Your task to perform on an android device: View the shopping cart on target. Search for usb-a to usb-b on target, select the first entry, and add it to the cart. Image 0: 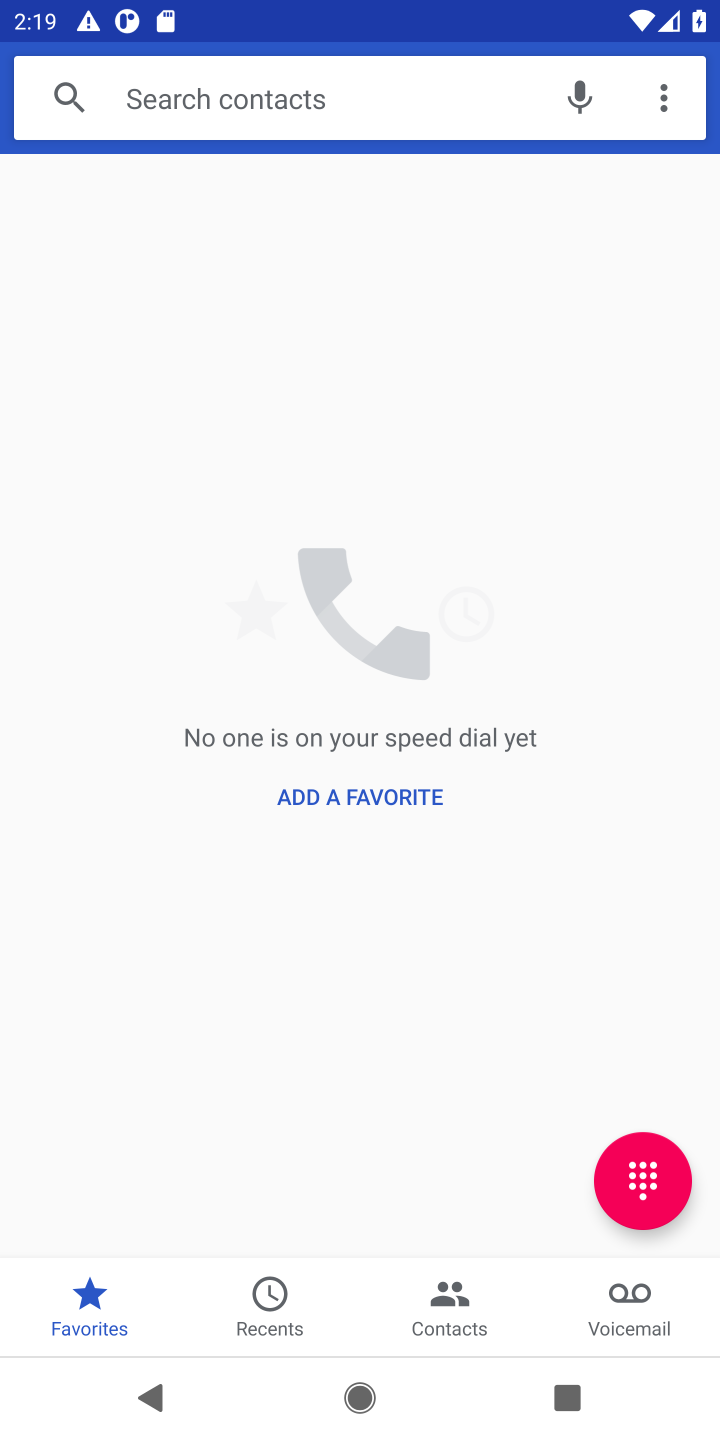
Step 0: press home button
Your task to perform on an android device: View the shopping cart on target. Search for usb-a to usb-b on target, select the first entry, and add it to the cart. Image 1: 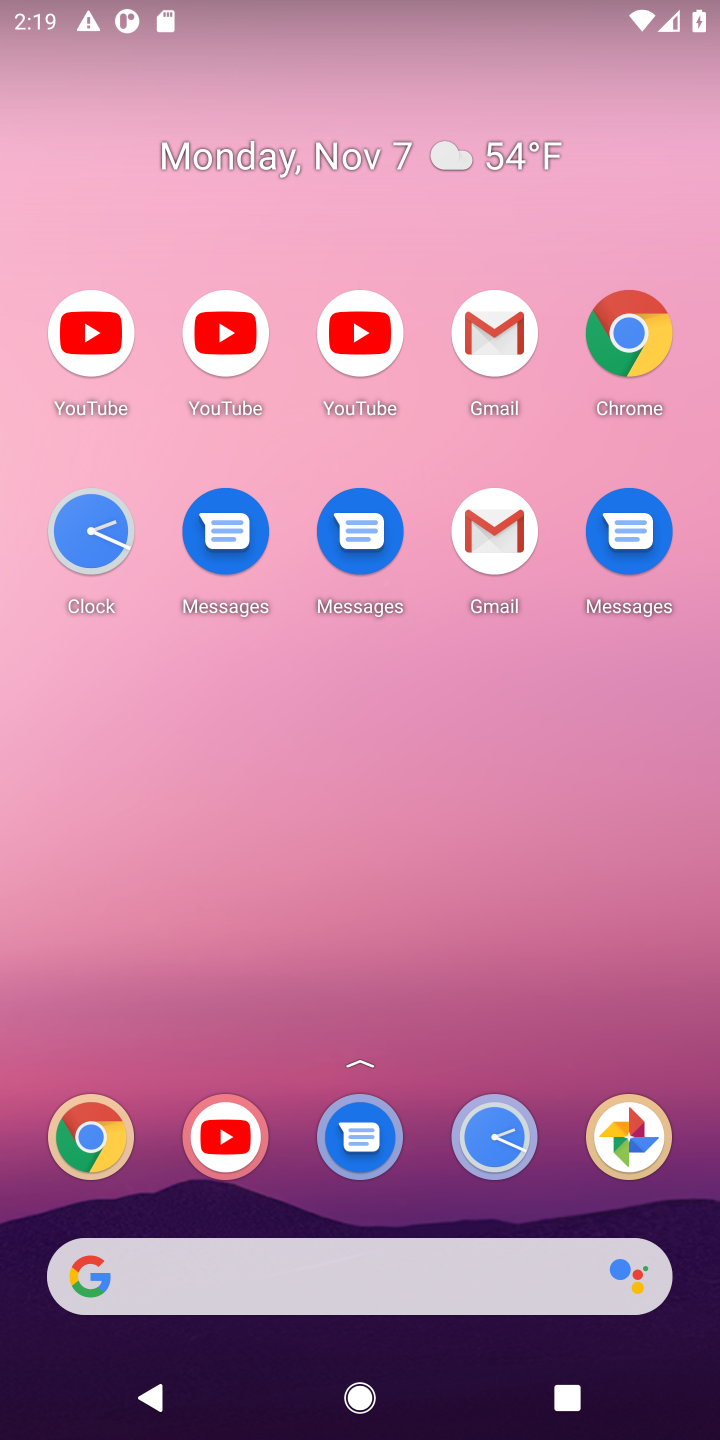
Step 1: drag from (406, 1191) to (318, 112)
Your task to perform on an android device: View the shopping cart on target. Search for usb-a to usb-b on target, select the first entry, and add it to the cart. Image 2: 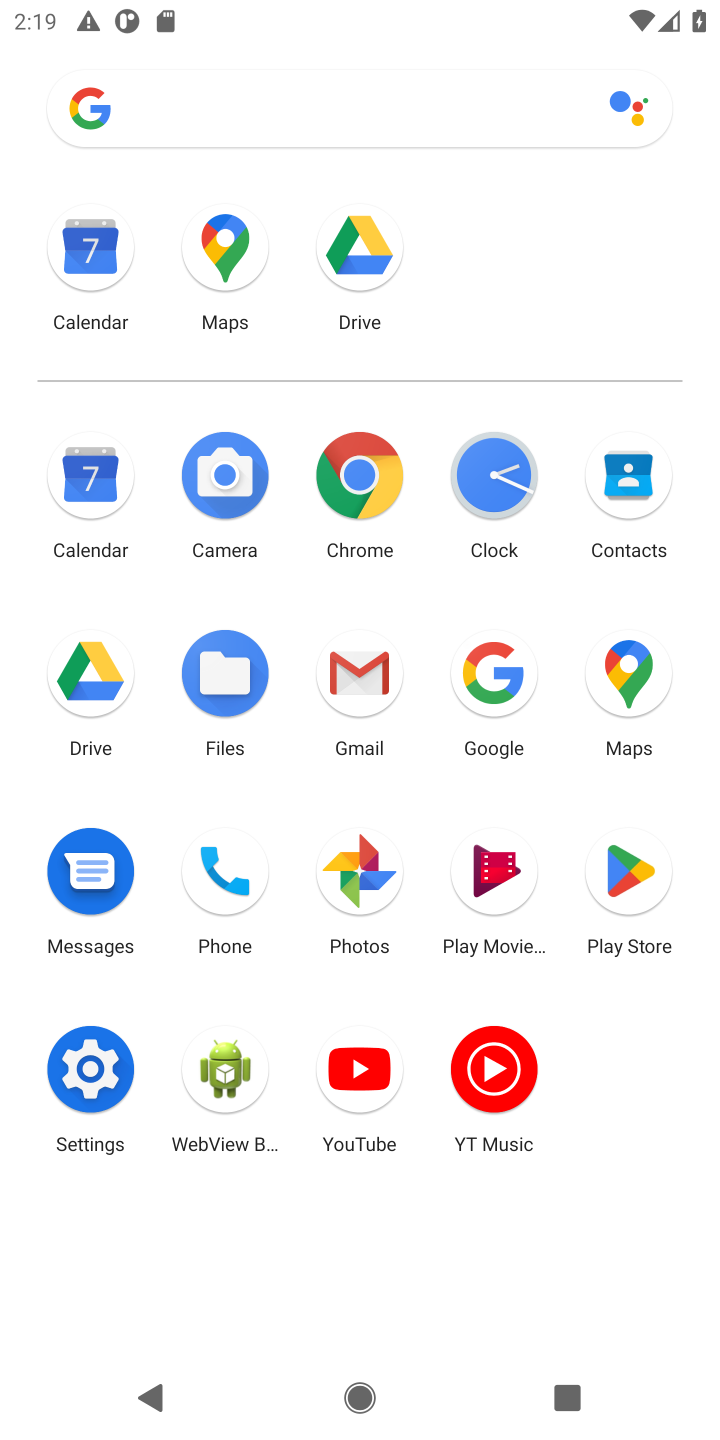
Step 2: click (360, 472)
Your task to perform on an android device: View the shopping cart on target. Search for usb-a to usb-b on target, select the first entry, and add it to the cart. Image 3: 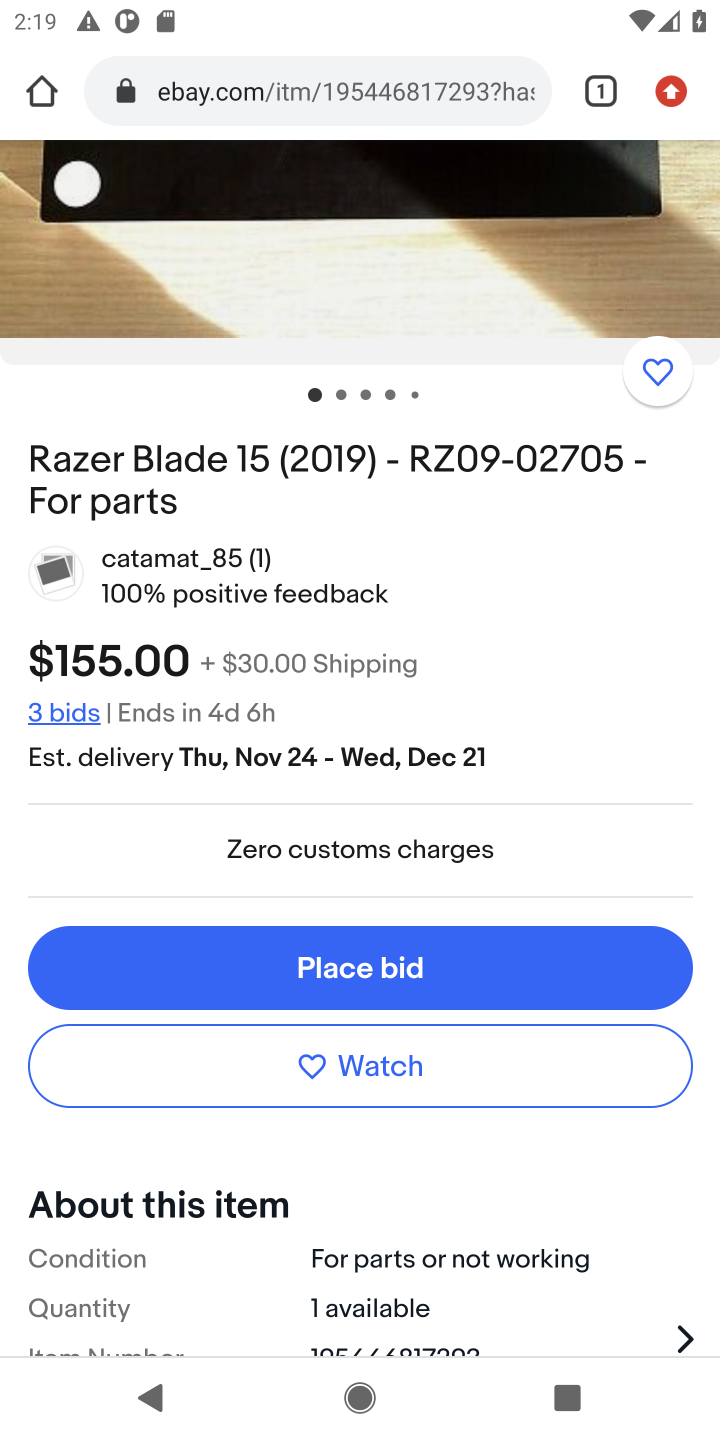
Step 3: click (369, 71)
Your task to perform on an android device: View the shopping cart on target. Search for usb-a to usb-b on target, select the first entry, and add it to the cart. Image 4: 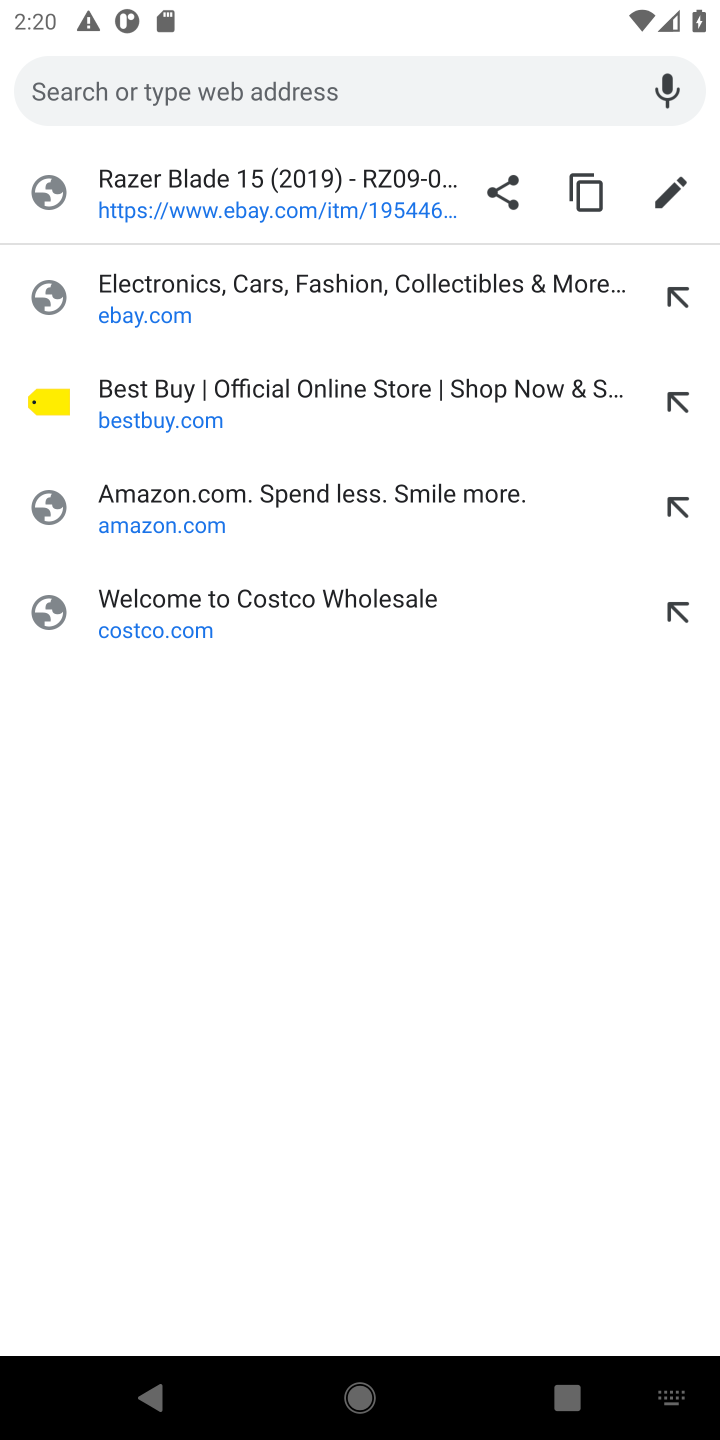
Step 4: type "target.com"
Your task to perform on an android device: View the shopping cart on target. Search for usb-a to usb-b on target, select the first entry, and add it to the cart. Image 5: 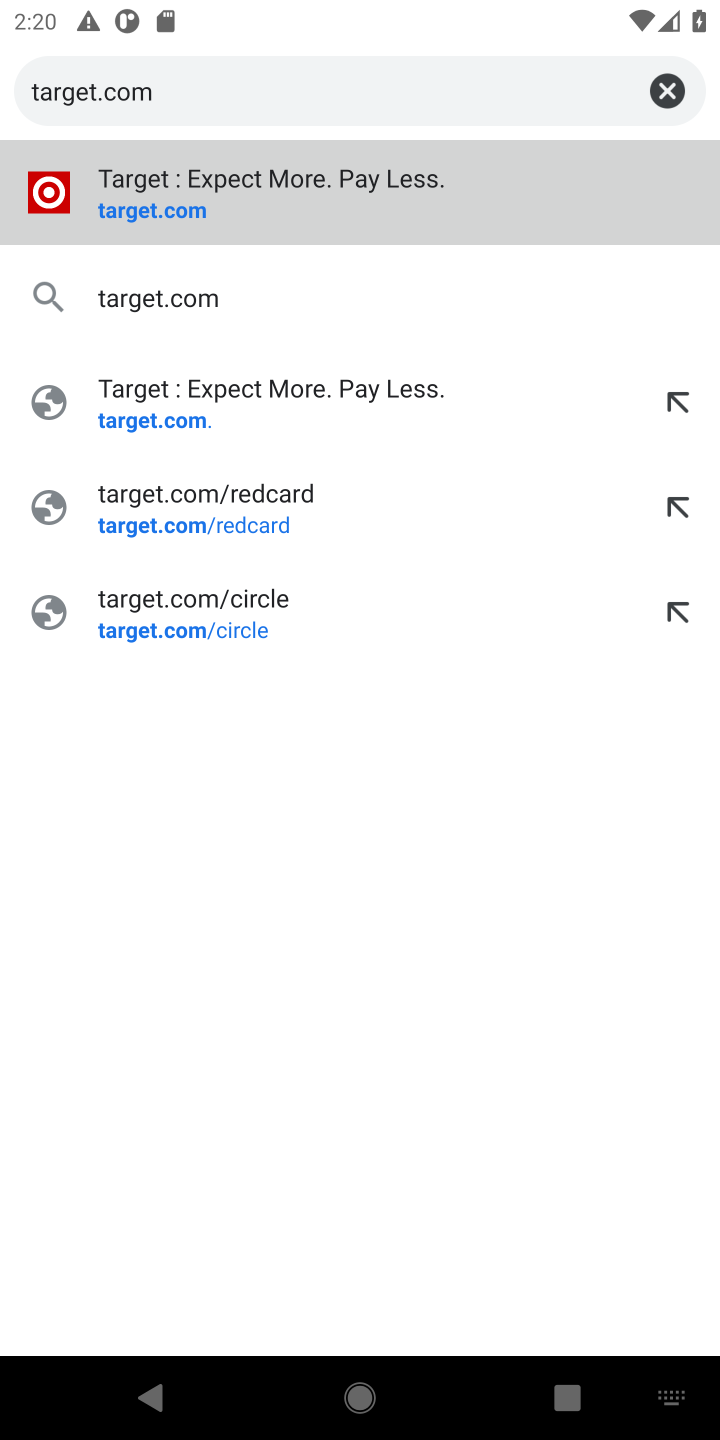
Step 5: press enter
Your task to perform on an android device: View the shopping cart on target. Search for usb-a to usb-b on target, select the first entry, and add it to the cart. Image 6: 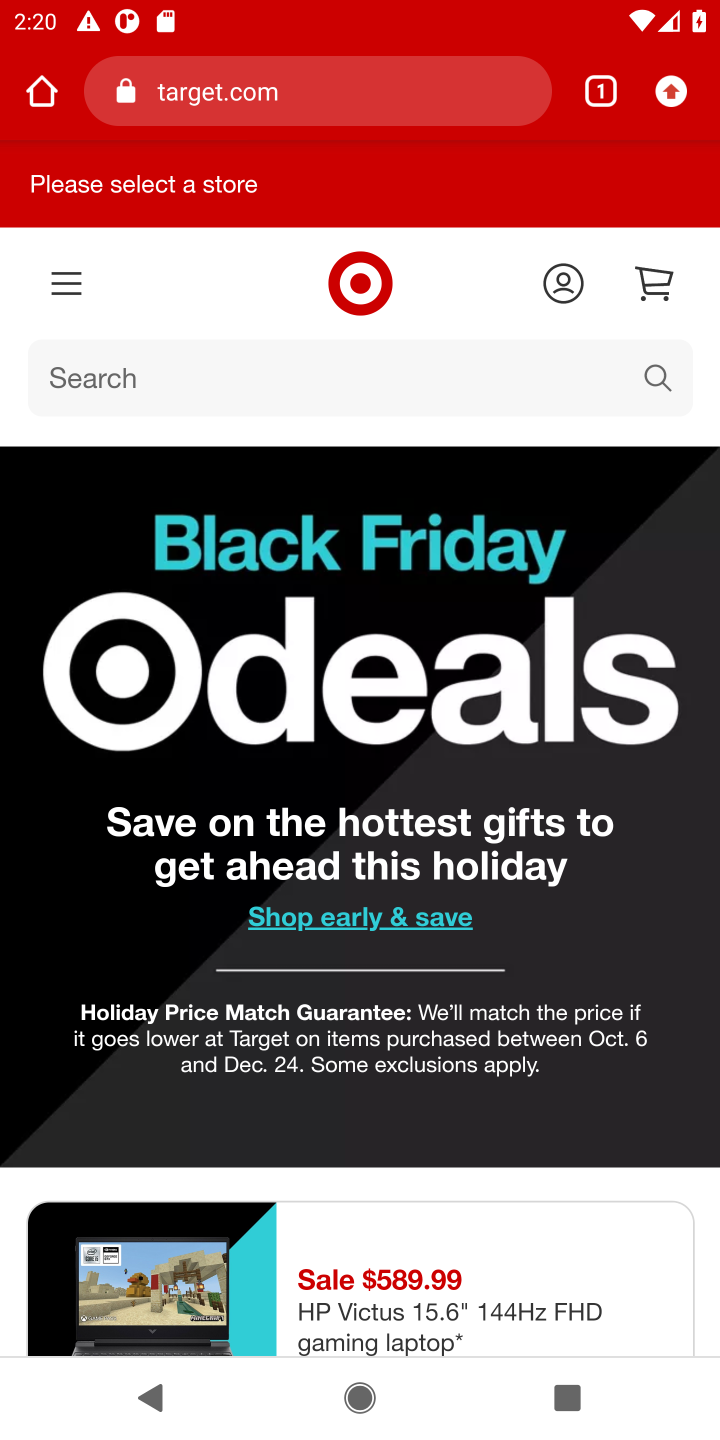
Step 6: click (656, 292)
Your task to perform on an android device: View the shopping cart on target. Search for usb-a to usb-b on target, select the first entry, and add it to the cart. Image 7: 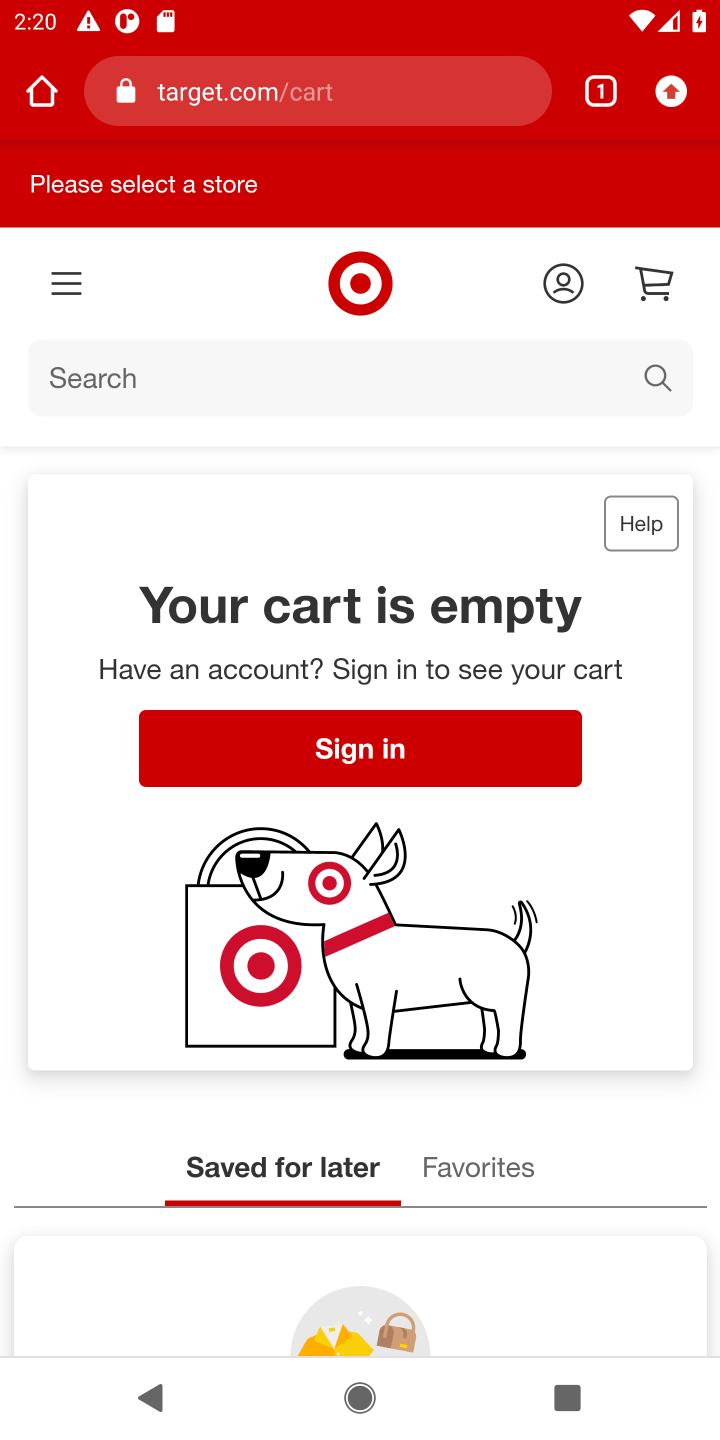
Step 7: click (406, 384)
Your task to perform on an android device: View the shopping cart on target. Search for usb-a to usb-b on target, select the first entry, and add it to the cart. Image 8: 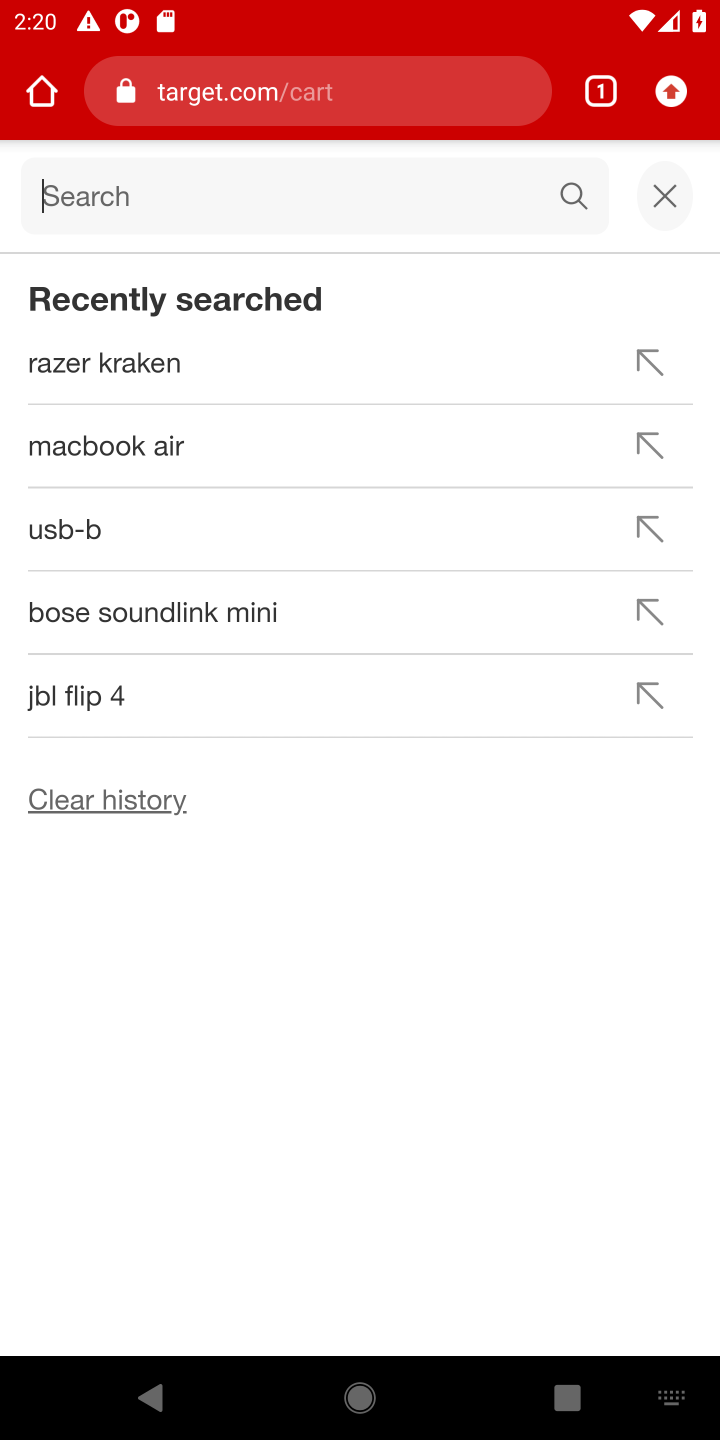
Step 8: type "usb-a to usb-b"
Your task to perform on an android device: View the shopping cart on target. Search for usb-a to usb-b on target, select the first entry, and add it to the cart. Image 9: 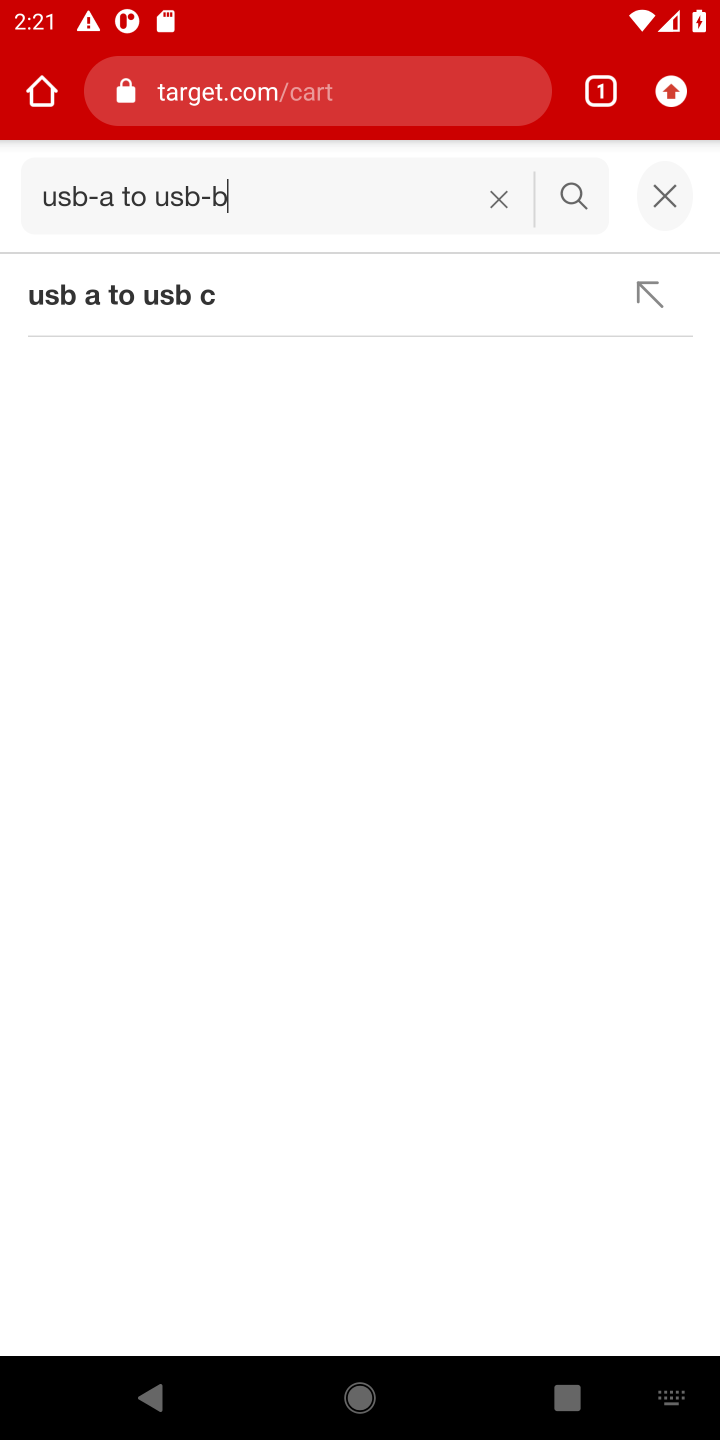
Step 9: press enter
Your task to perform on an android device: View the shopping cart on target. Search for usb-a to usb-b on target, select the first entry, and add it to the cart. Image 10: 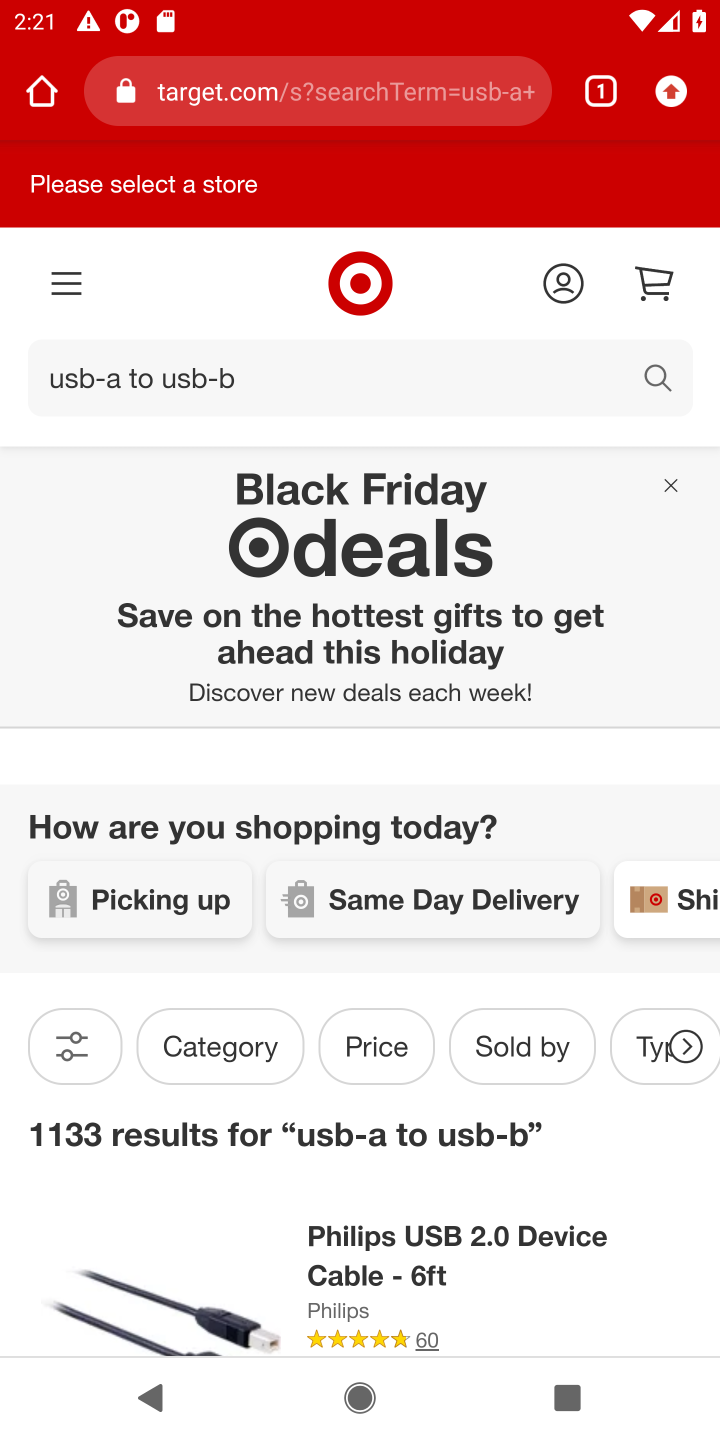
Step 10: drag from (400, 1241) to (417, 553)
Your task to perform on an android device: View the shopping cart on target. Search for usb-a to usb-b on target, select the first entry, and add it to the cart. Image 11: 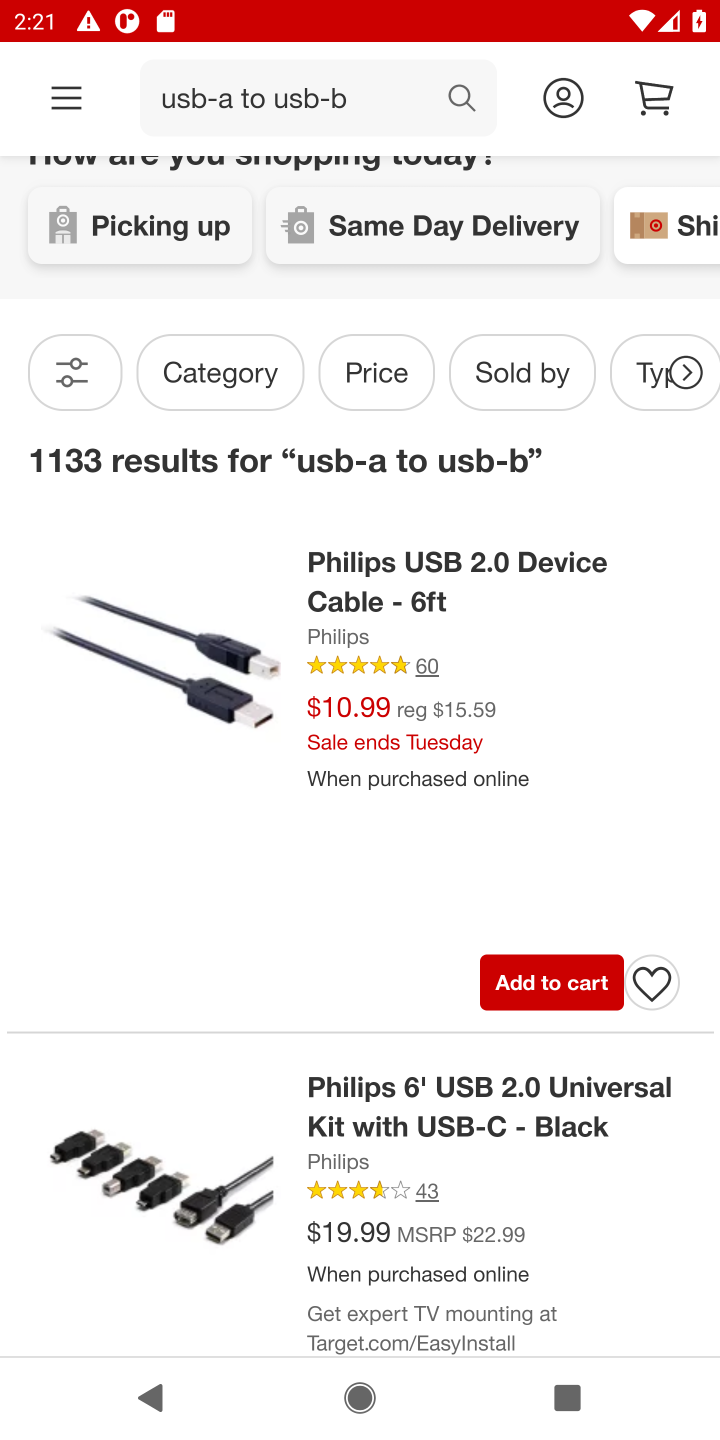
Step 11: drag from (568, 1248) to (563, 748)
Your task to perform on an android device: View the shopping cart on target. Search for usb-a to usb-b on target, select the first entry, and add it to the cart. Image 12: 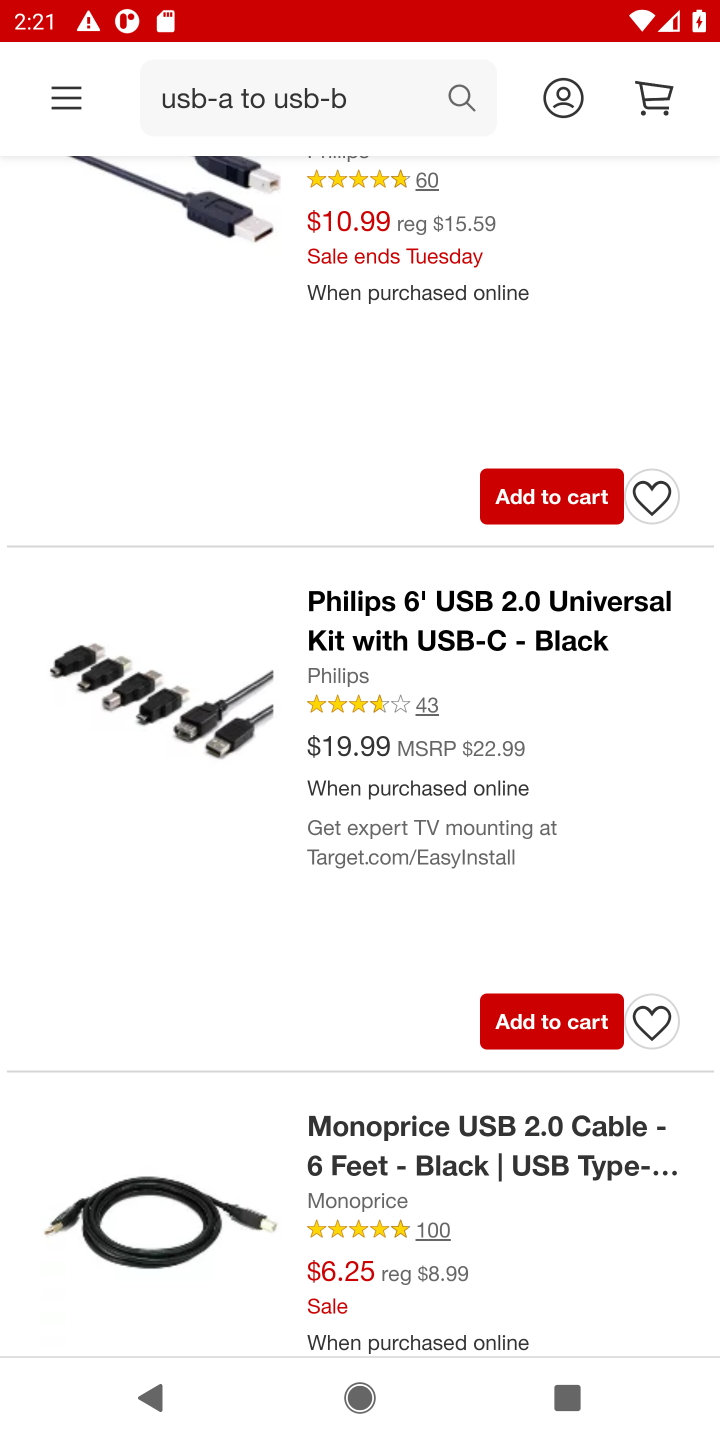
Step 12: drag from (457, 903) to (485, 500)
Your task to perform on an android device: View the shopping cart on target. Search for usb-a to usb-b on target, select the first entry, and add it to the cart. Image 13: 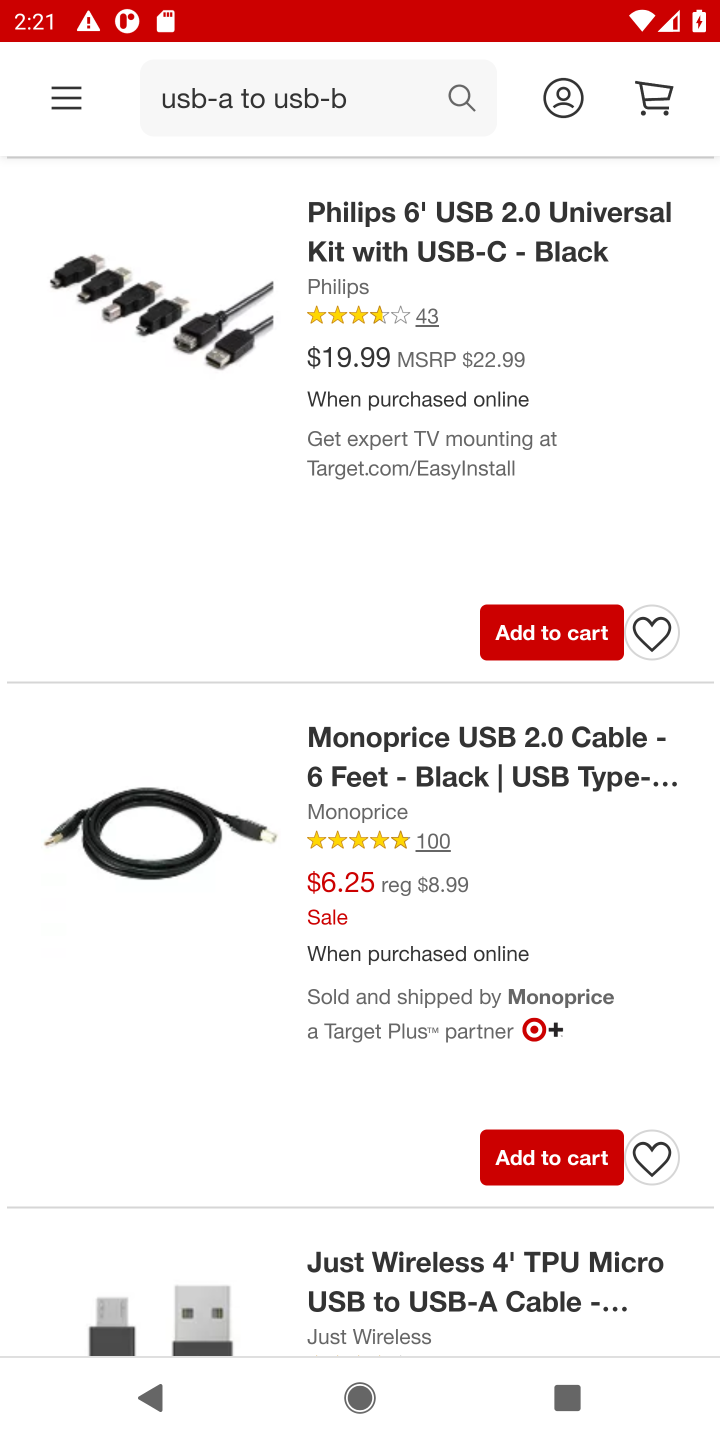
Step 13: drag from (510, 881) to (602, 580)
Your task to perform on an android device: View the shopping cart on target. Search for usb-a to usb-b on target, select the first entry, and add it to the cart. Image 14: 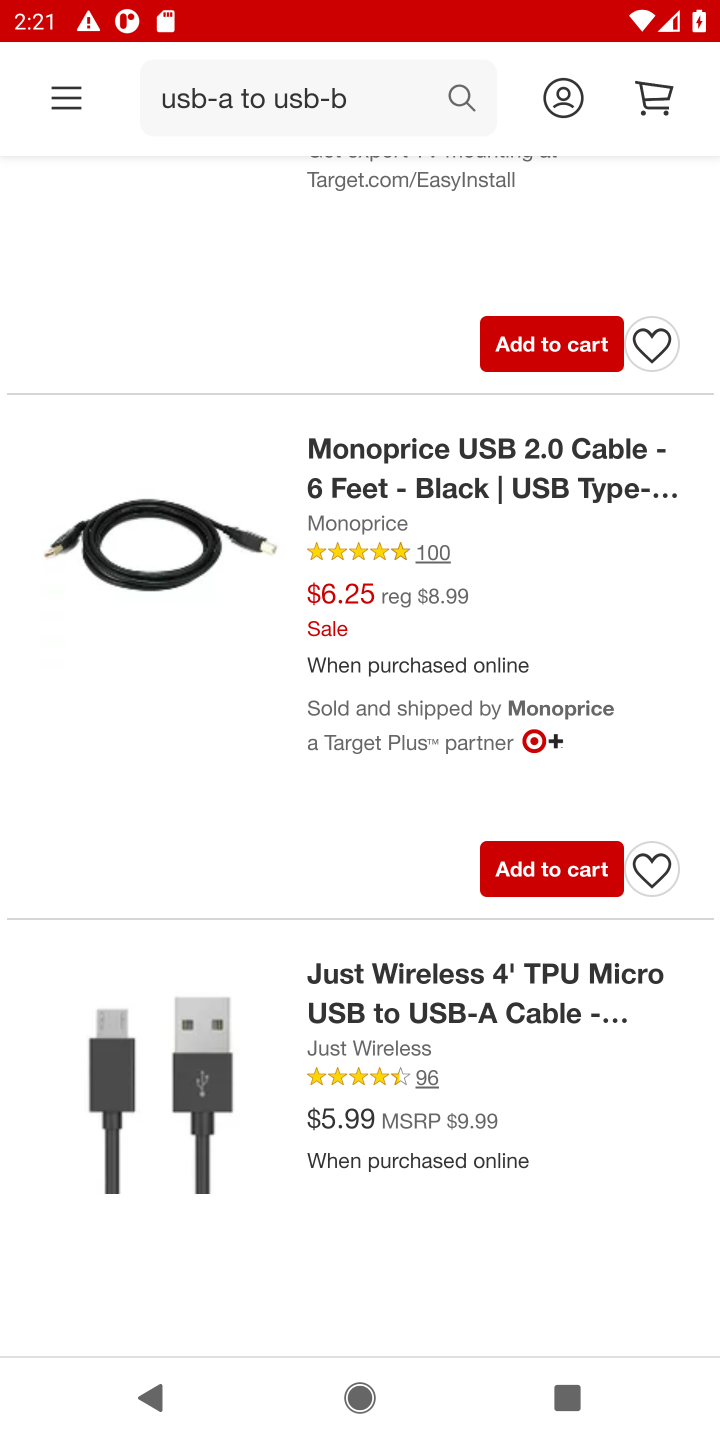
Step 14: drag from (345, 486) to (363, 1117)
Your task to perform on an android device: View the shopping cart on target. Search for usb-a to usb-b on target, select the first entry, and add it to the cart. Image 15: 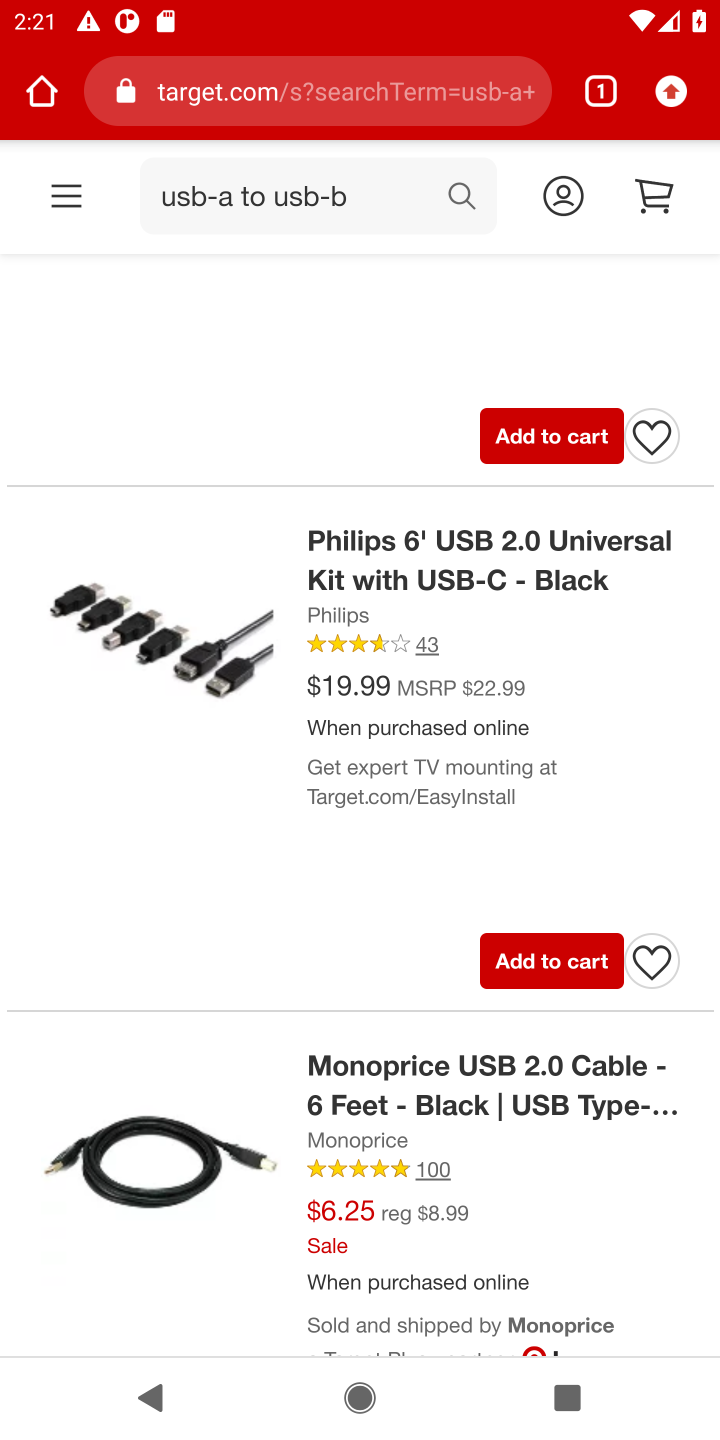
Step 15: drag from (369, 639) to (385, 997)
Your task to perform on an android device: View the shopping cart on target. Search for usb-a to usb-b on target, select the first entry, and add it to the cart. Image 16: 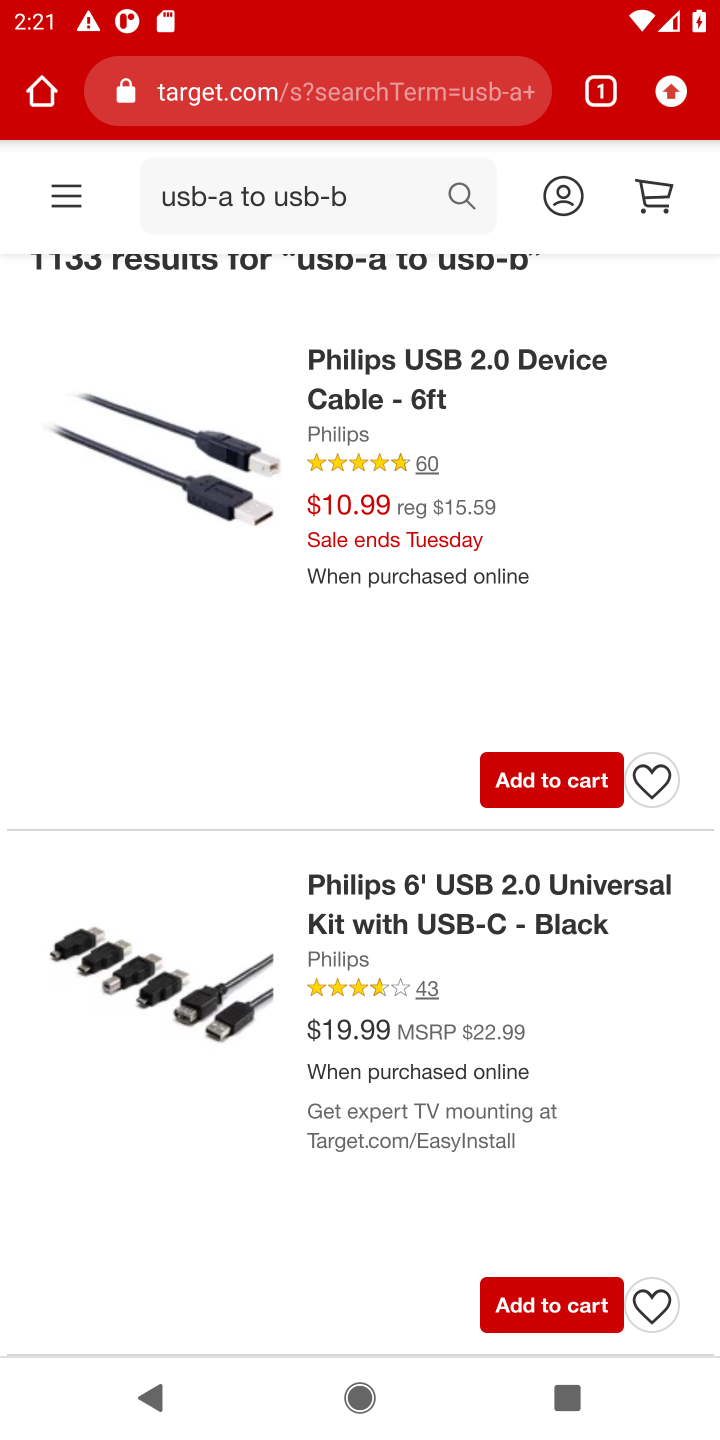
Step 16: drag from (431, 484) to (396, 932)
Your task to perform on an android device: View the shopping cart on target. Search for usb-a to usb-b on target, select the first entry, and add it to the cart. Image 17: 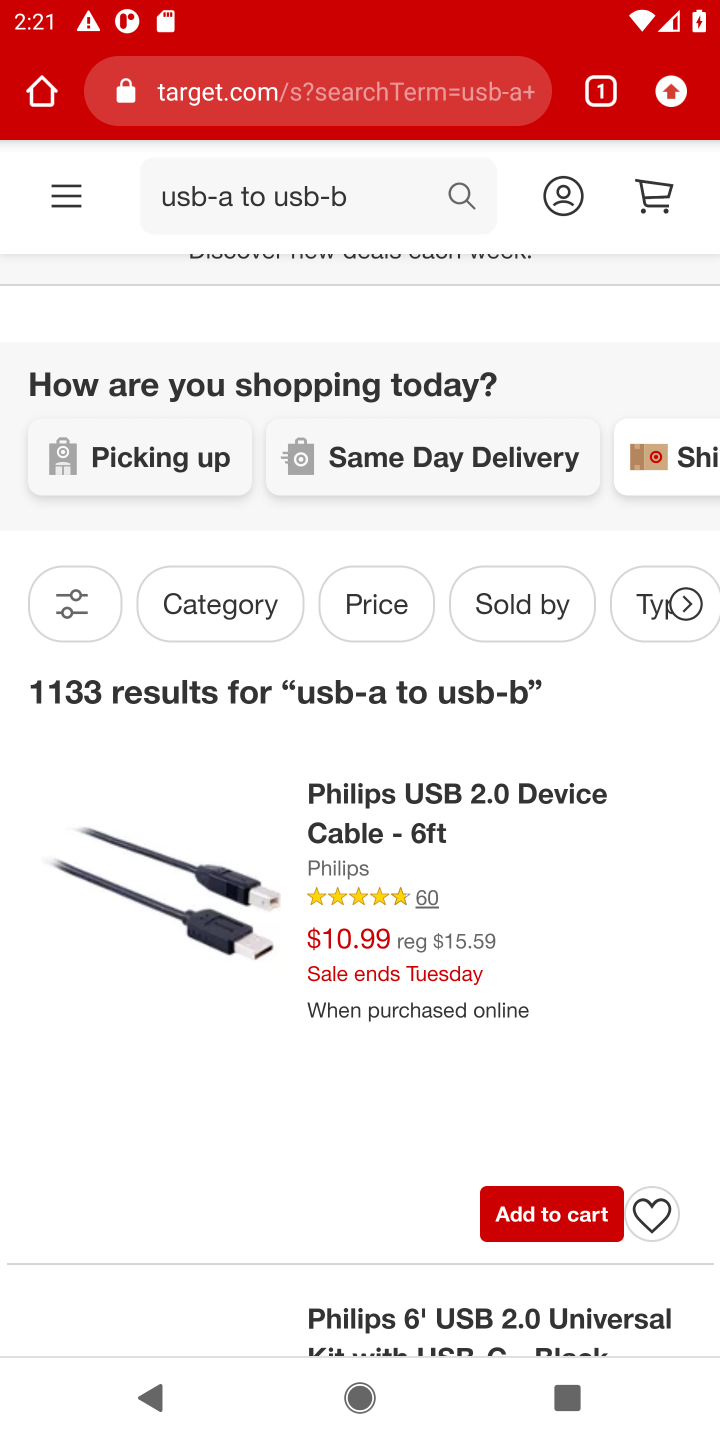
Step 17: click (451, 796)
Your task to perform on an android device: View the shopping cart on target. Search for usb-a to usb-b on target, select the first entry, and add it to the cart. Image 18: 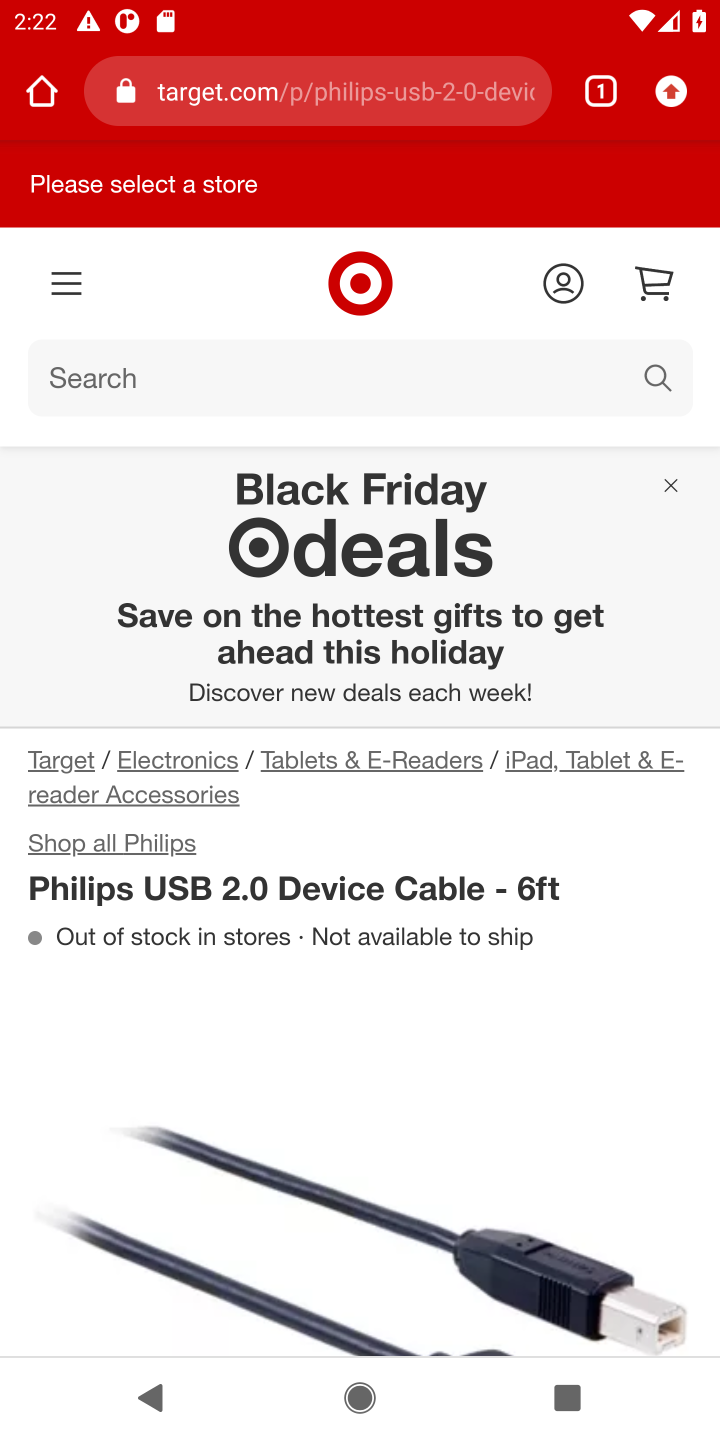
Step 18: task complete